Your task to perform on an android device: Empty the shopping cart on bestbuy.com. Add razer blade to the cart on bestbuy.com Image 0: 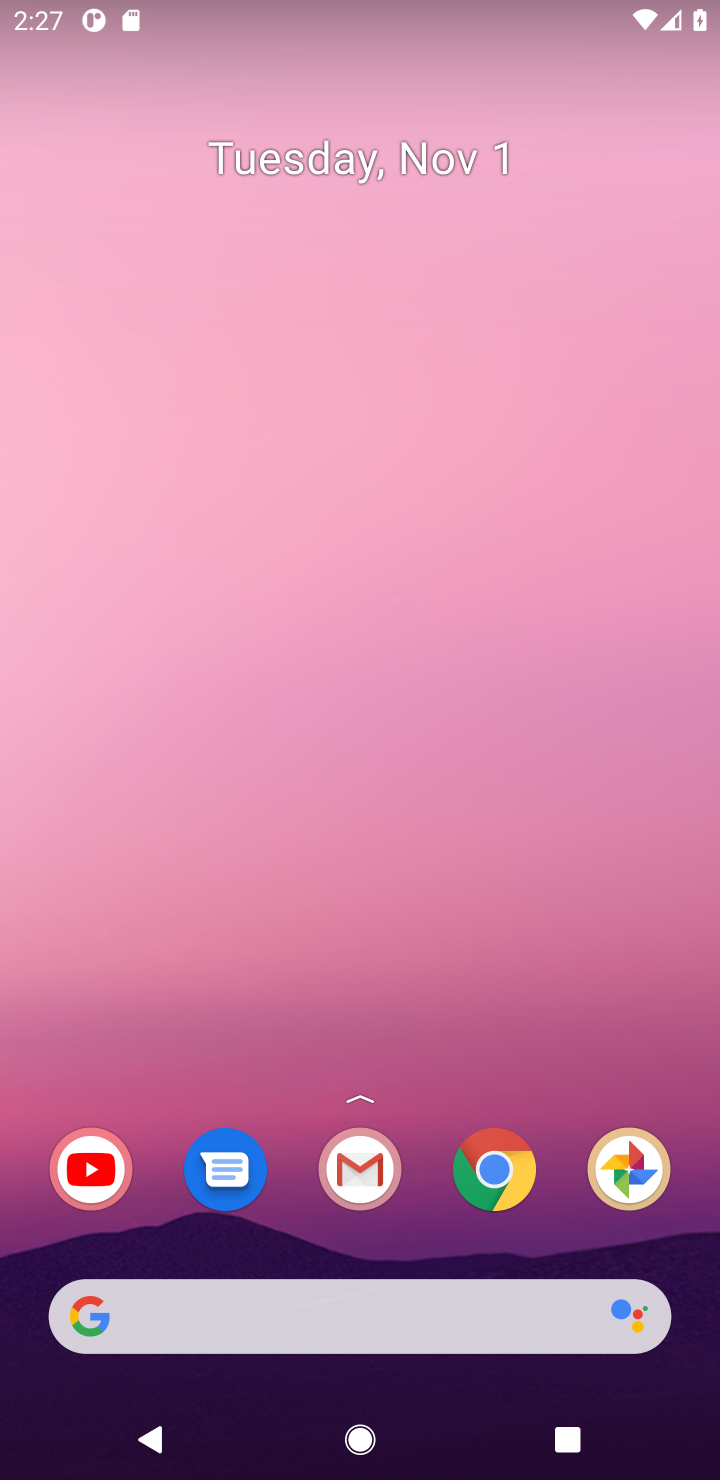
Step 0: press home button
Your task to perform on an android device: Empty the shopping cart on bestbuy.com. Add razer blade to the cart on bestbuy.com Image 1: 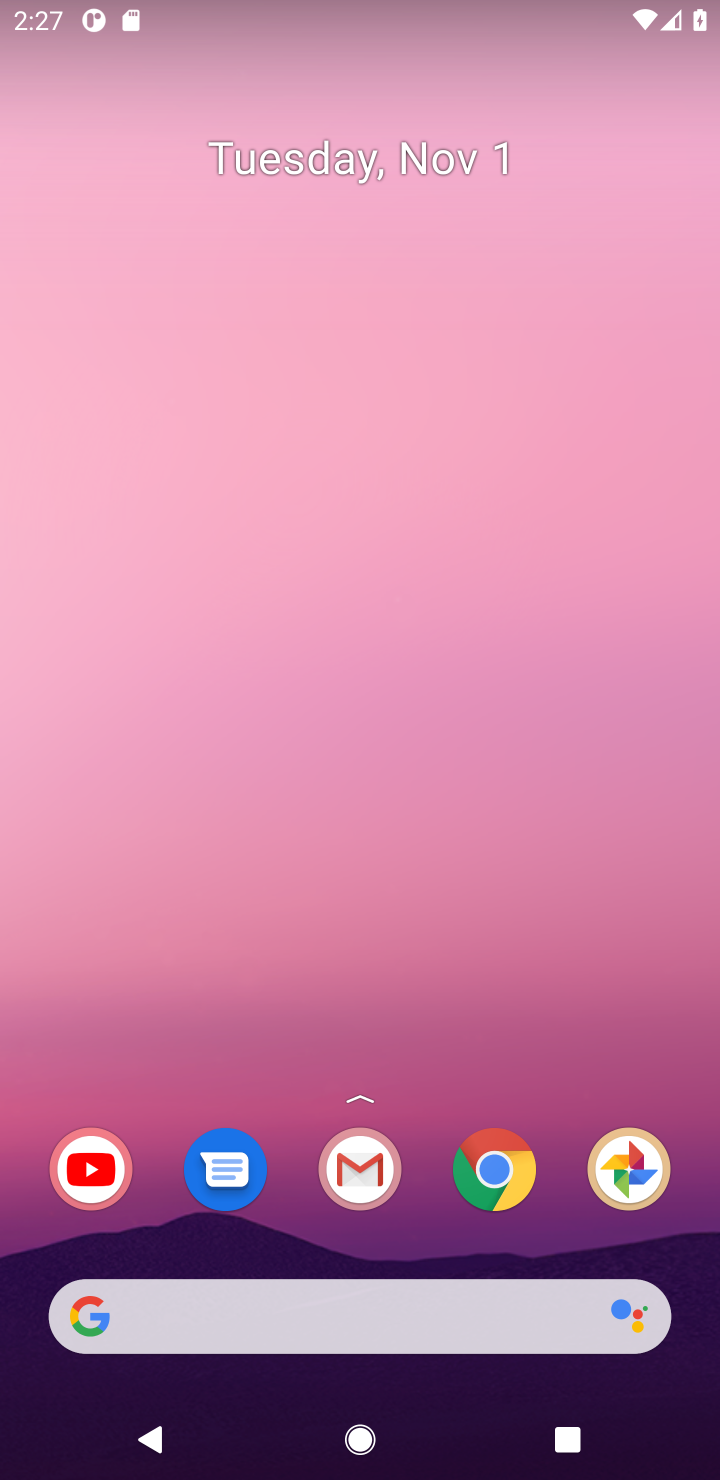
Step 1: drag from (494, 492) to (516, 0)
Your task to perform on an android device: Empty the shopping cart on bestbuy.com. Add razer blade to the cart on bestbuy.com Image 2: 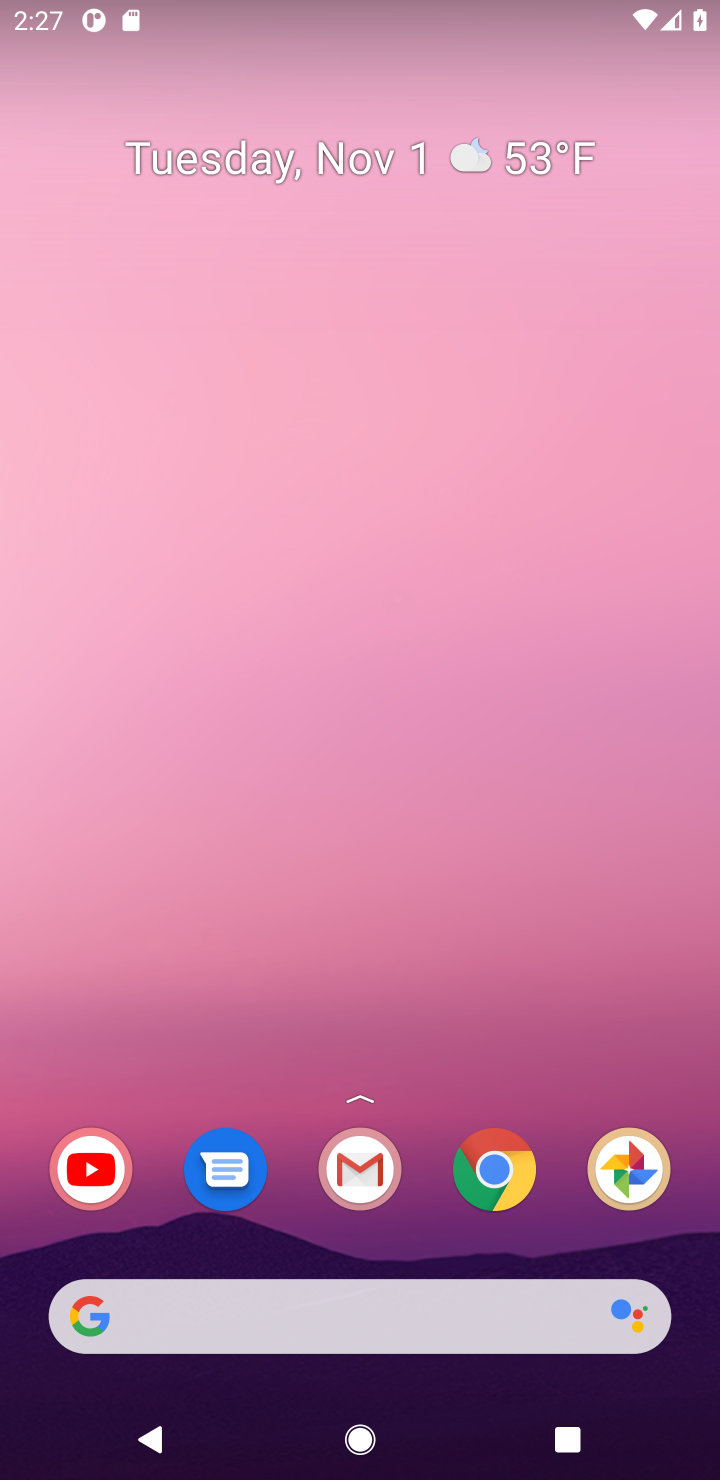
Step 2: drag from (410, 1106) to (525, 32)
Your task to perform on an android device: Empty the shopping cart on bestbuy.com. Add razer blade to the cart on bestbuy.com Image 3: 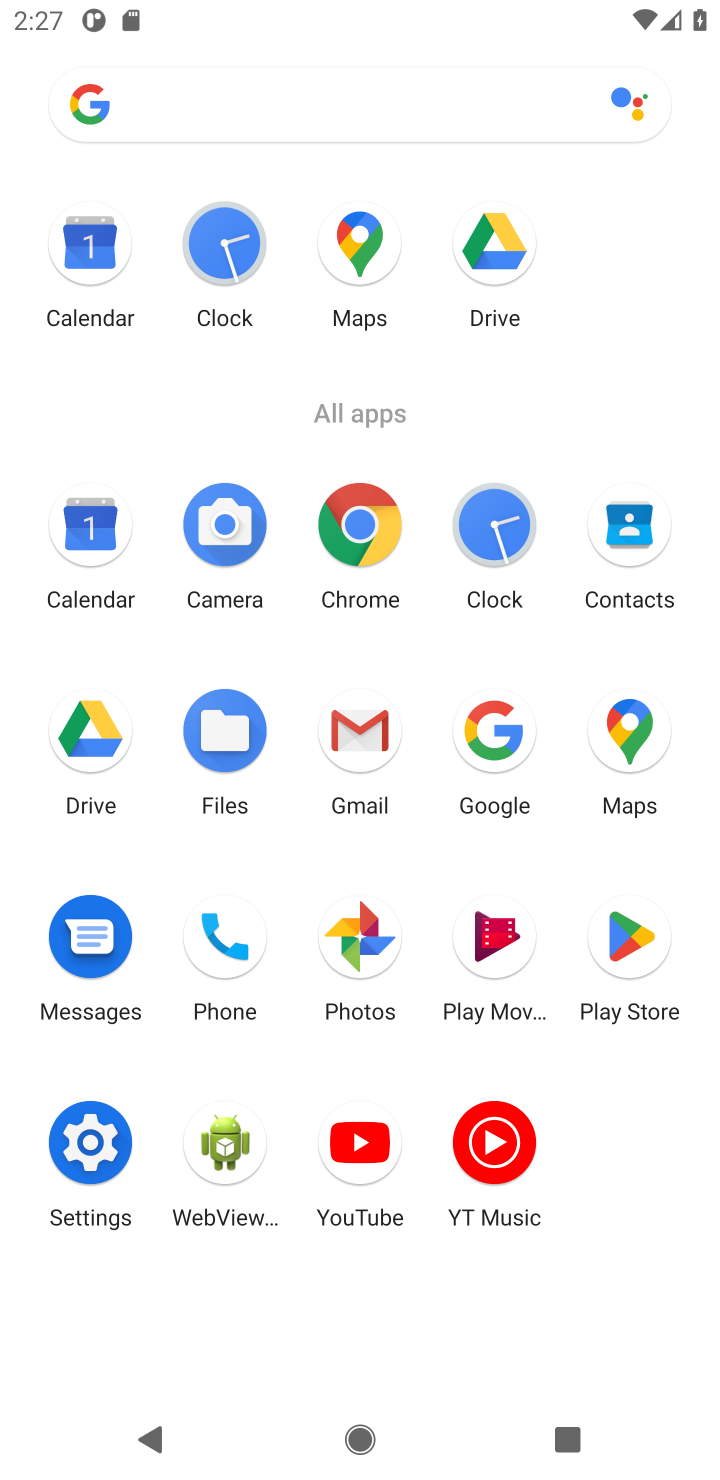
Step 3: click (358, 518)
Your task to perform on an android device: Empty the shopping cart on bestbuy.com. Add razer blade to the cart on bestbuy.com Image 4: 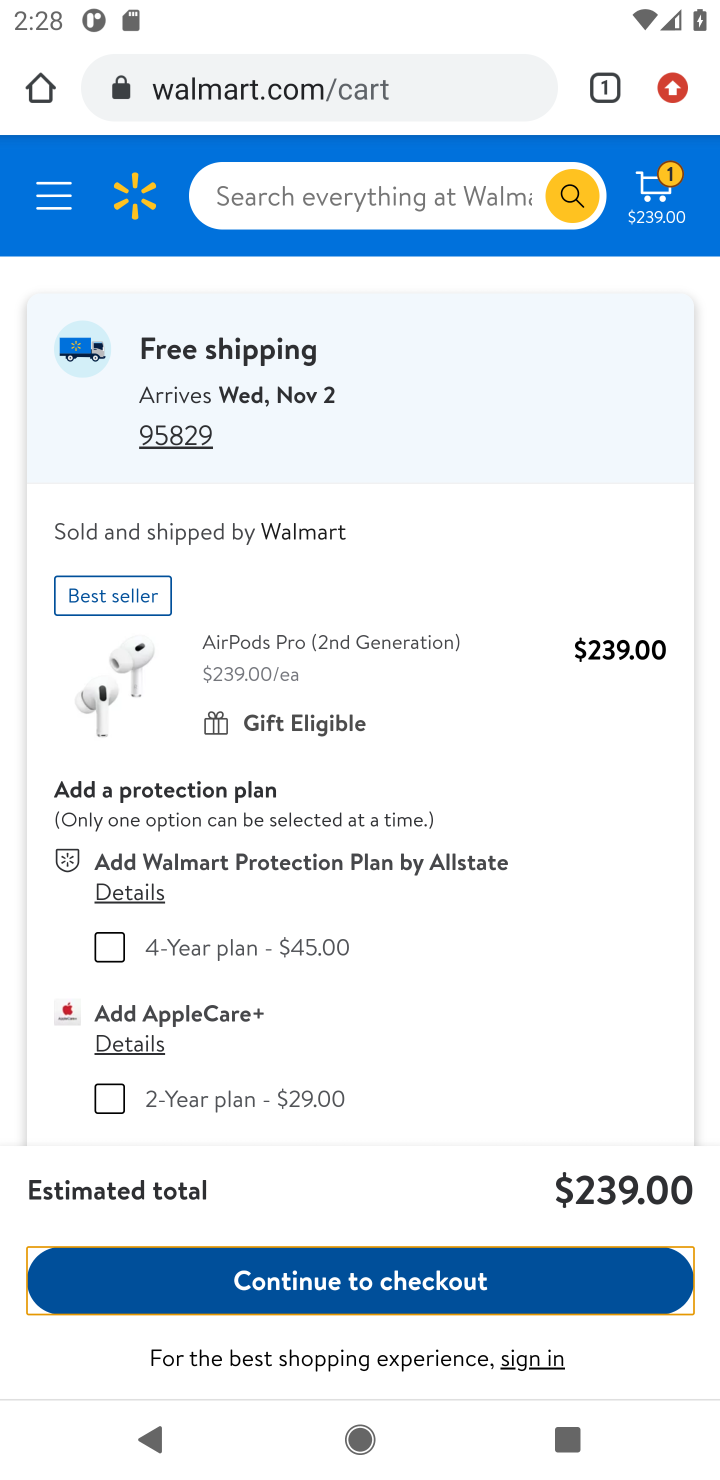
Step 4: click (264, 74)
Your task to perform on an android device: Empty the shopping cart on bestbuy.com. Add razer blade to the cart on bestbuy.com Image 5: 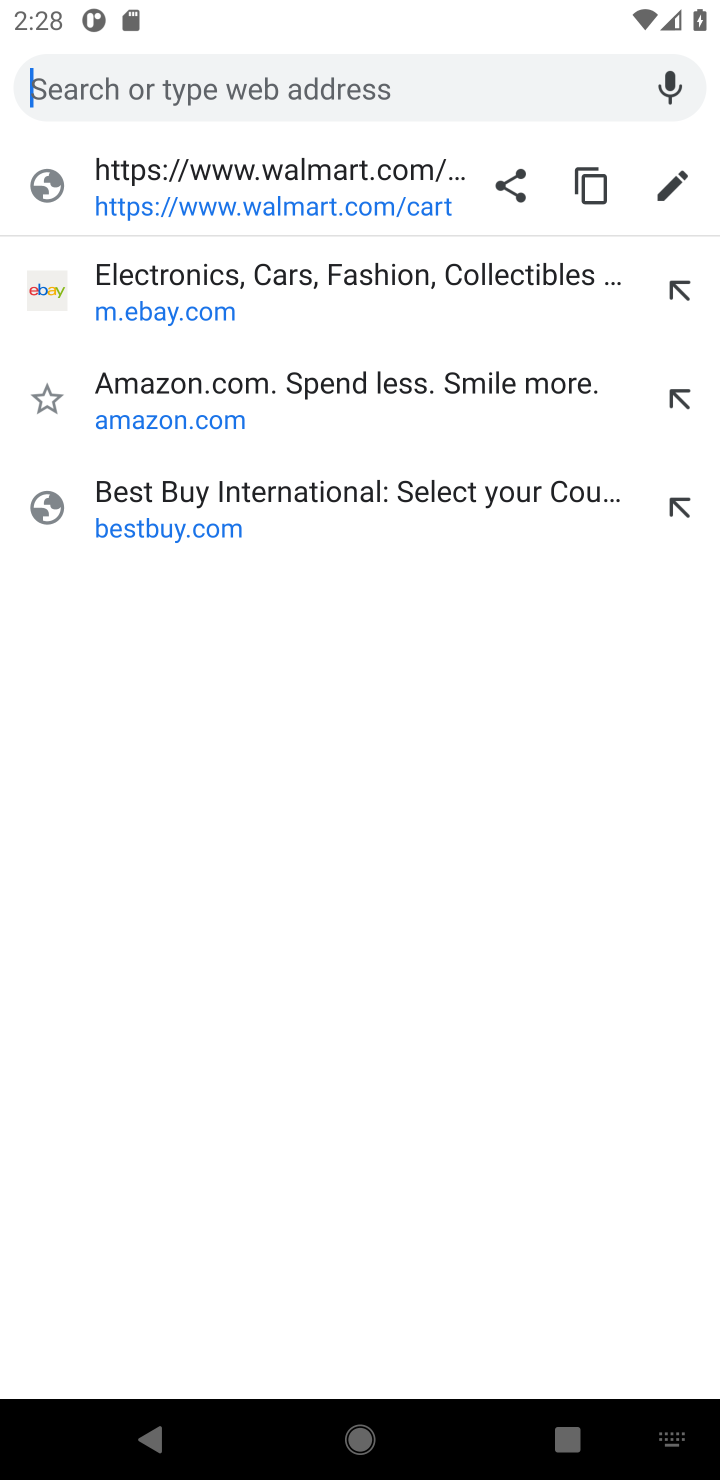
Step 5: type "bestbuy.com"
Your task to perform on an android device: Empty the shopping cart on bestbuy.com. Add razer blade to the cart on bestbuy.com Image 6: 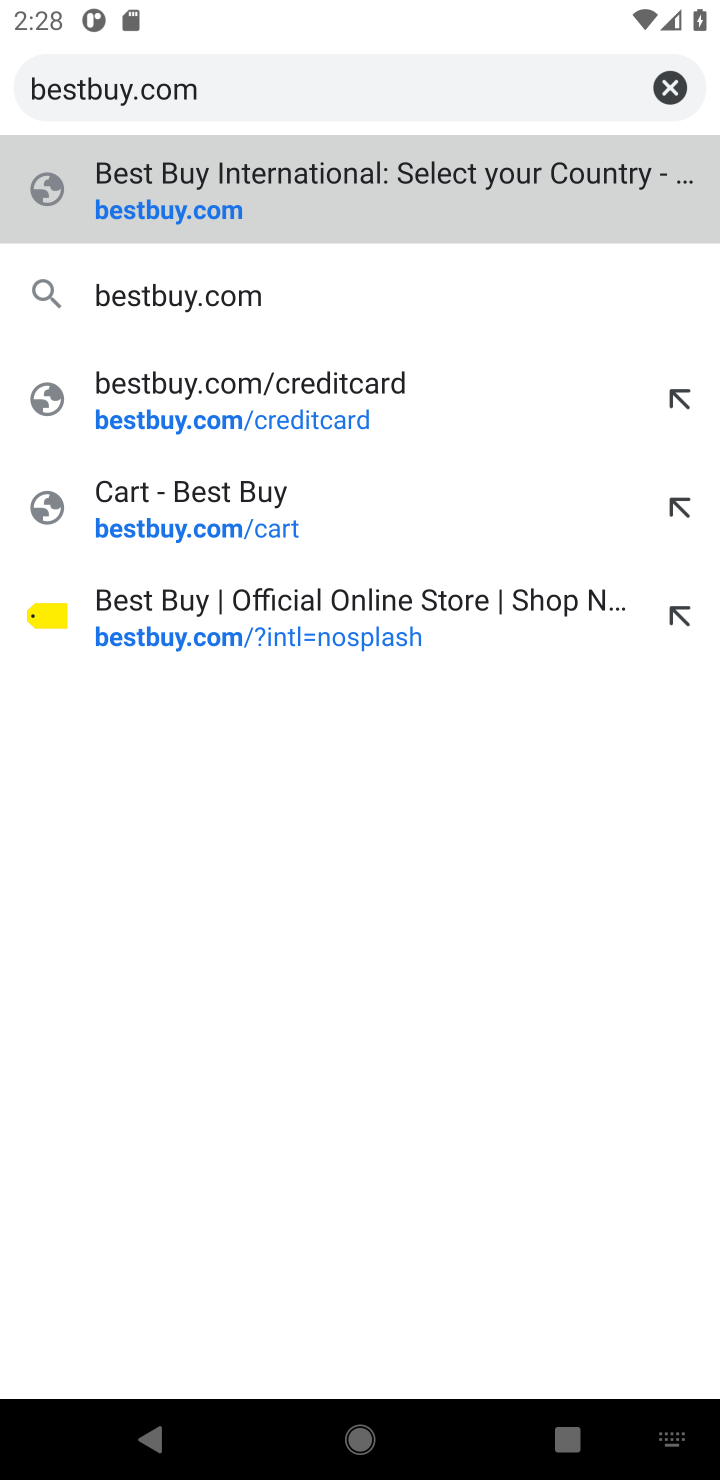
Step 6: click (291, 201)
Your task to perform on an android device: Empty the shopping cart on bestbuy.com. Add razer blade to the cart on bestbuy.com Image 7: 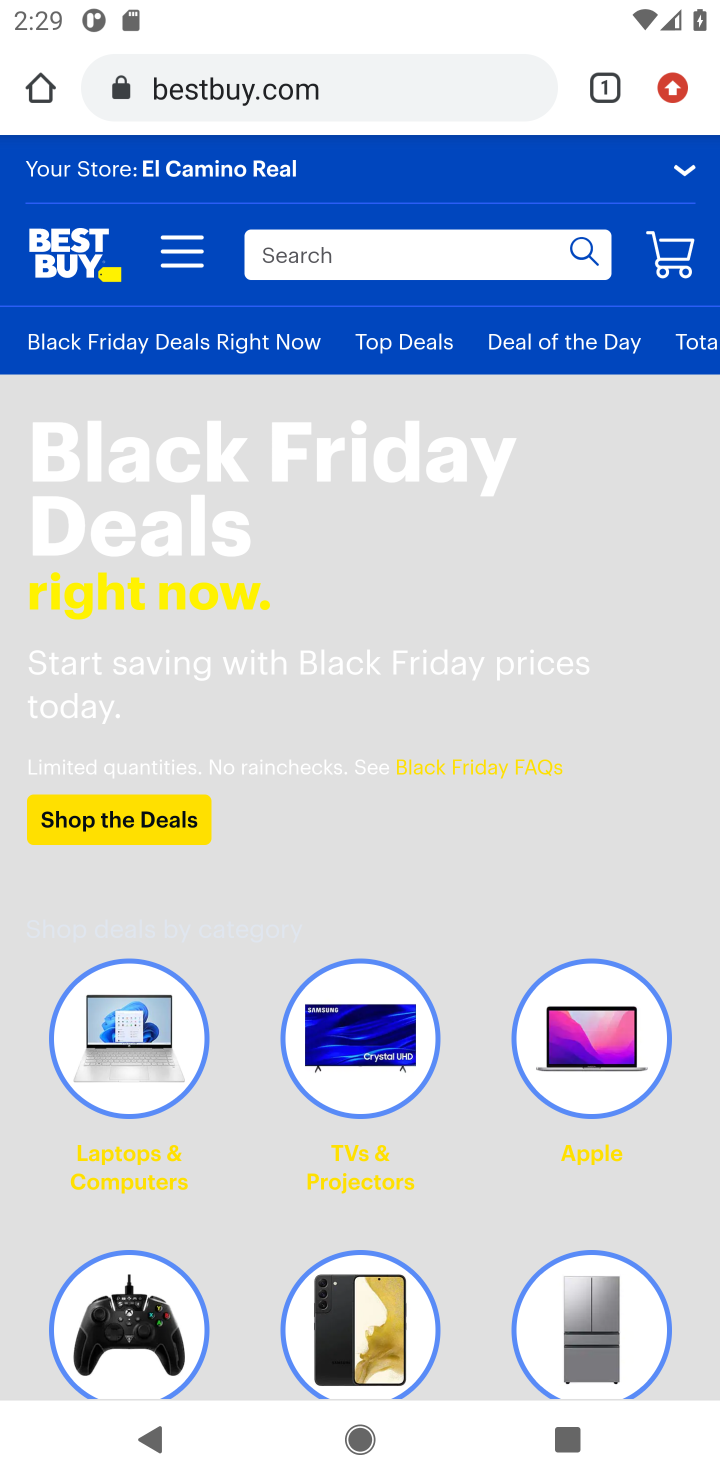
Step 7: click (326, 248)
Your task to perform on an android device: Empty the shopping cart on bestbuy.com. Add razer blade to the cart on bestbuy.com Image 8: 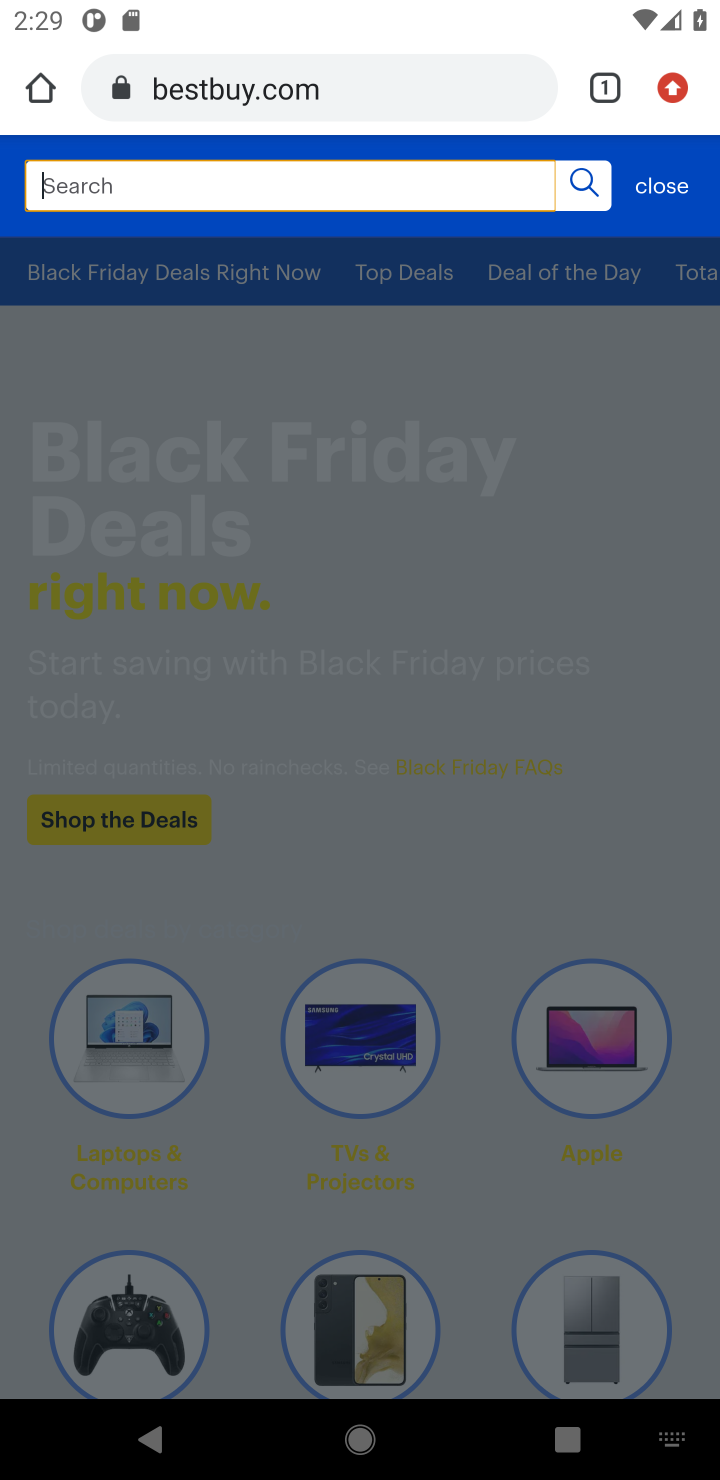
Step 8: type "razer blade"
Your task to perform on an android device: Empty the shopping cart on bestbuy.com. Add razer blade to the cart on bestbuy.com Image 9: 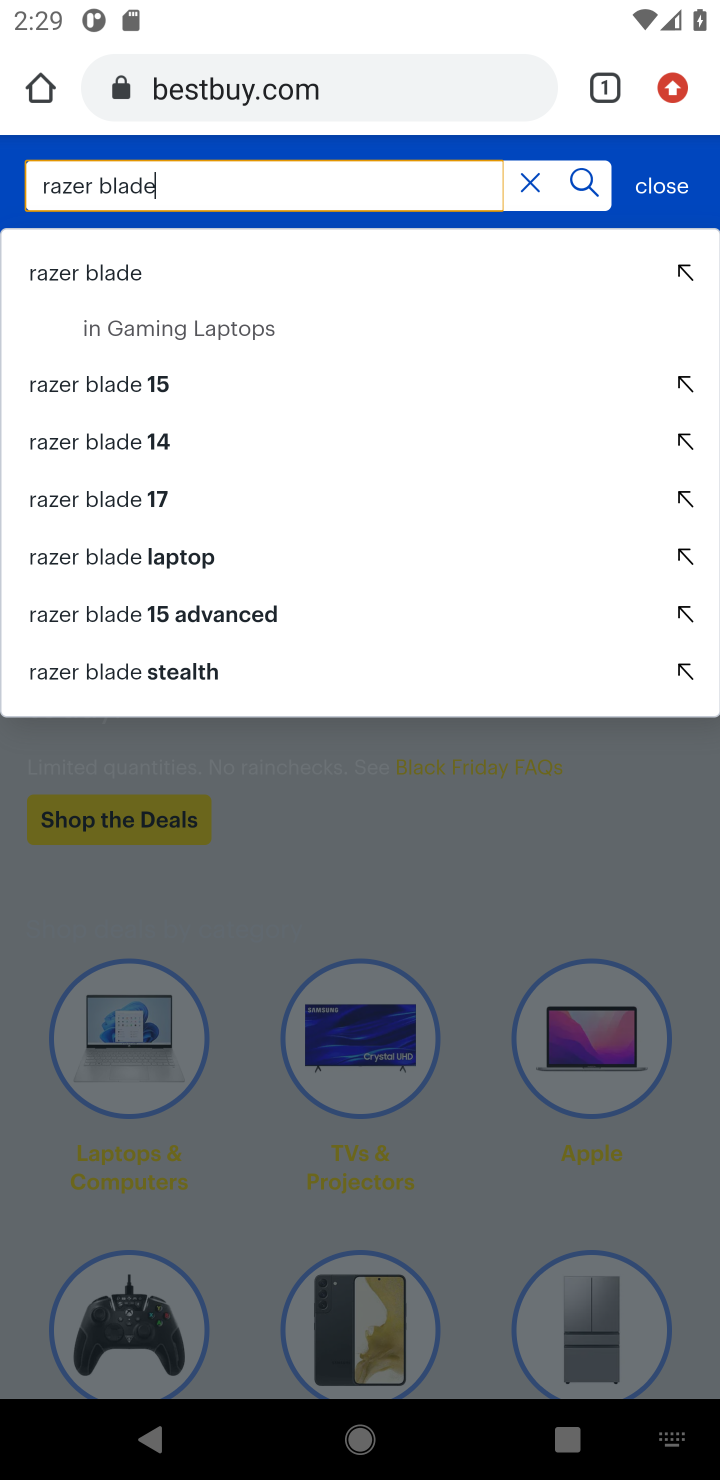
Step 9: click (120, 292)
Your task to perform on an android device: Empty the shopping cart on bestbuy.com. Add razer blade to the cart on bestbuy.com Image 10: 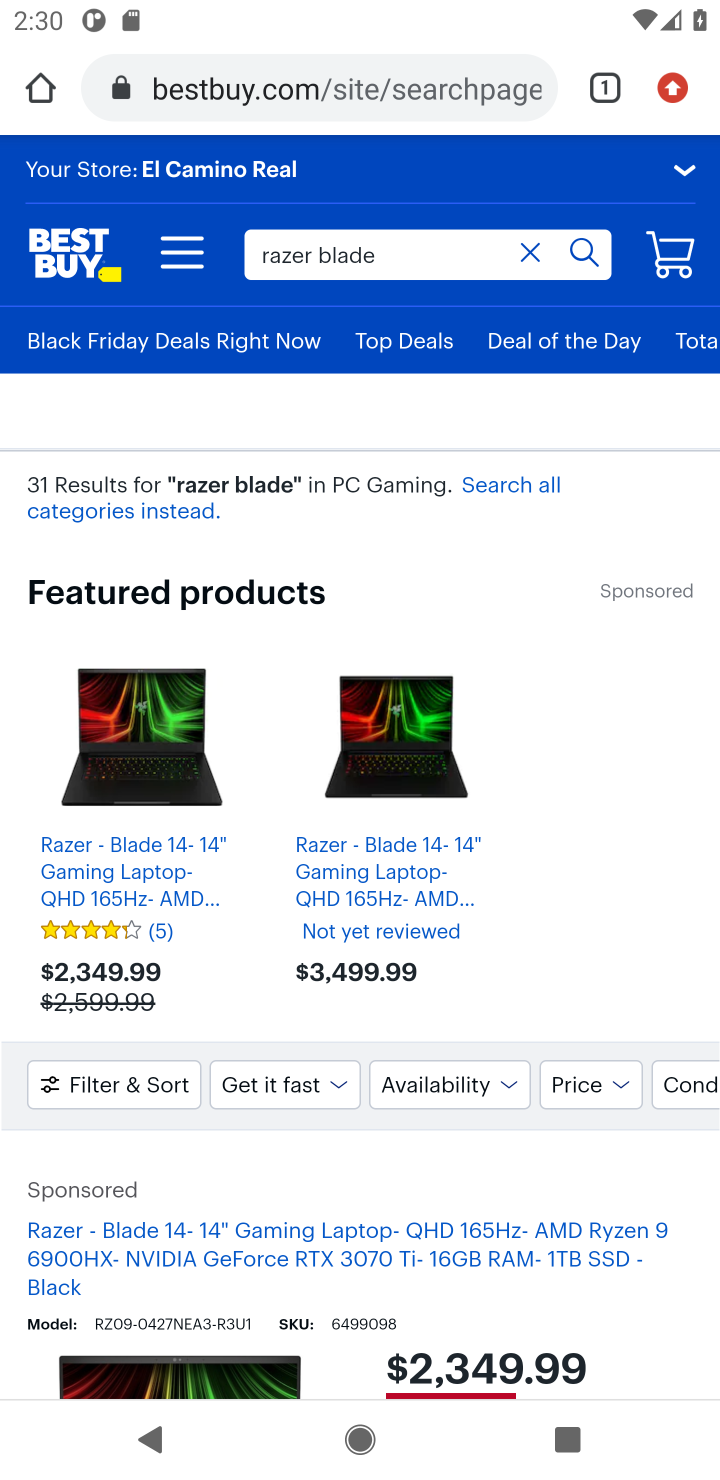
Step 10: click (278, 1242)
Your task to perform on an android device: Empty the shopping cart on bestbuy.com. Add razer blade to the cart on bestbuy.com Image 11: 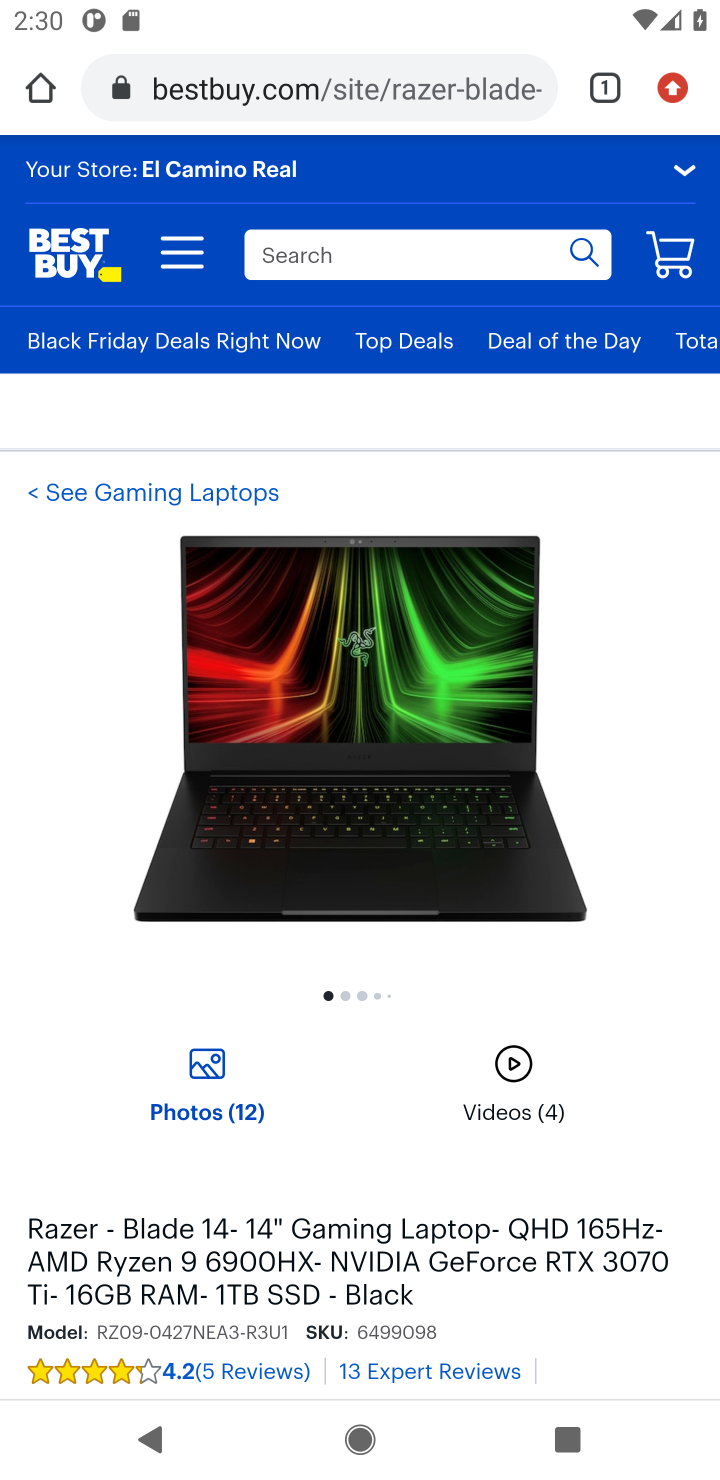
Step 11: drag from (413, 1294) to (400, 213)
Your task to perform on an android device: Empty the shopping cart on bestbuy.com. Add razer blade to the cart on bestbuy.com Image 12: 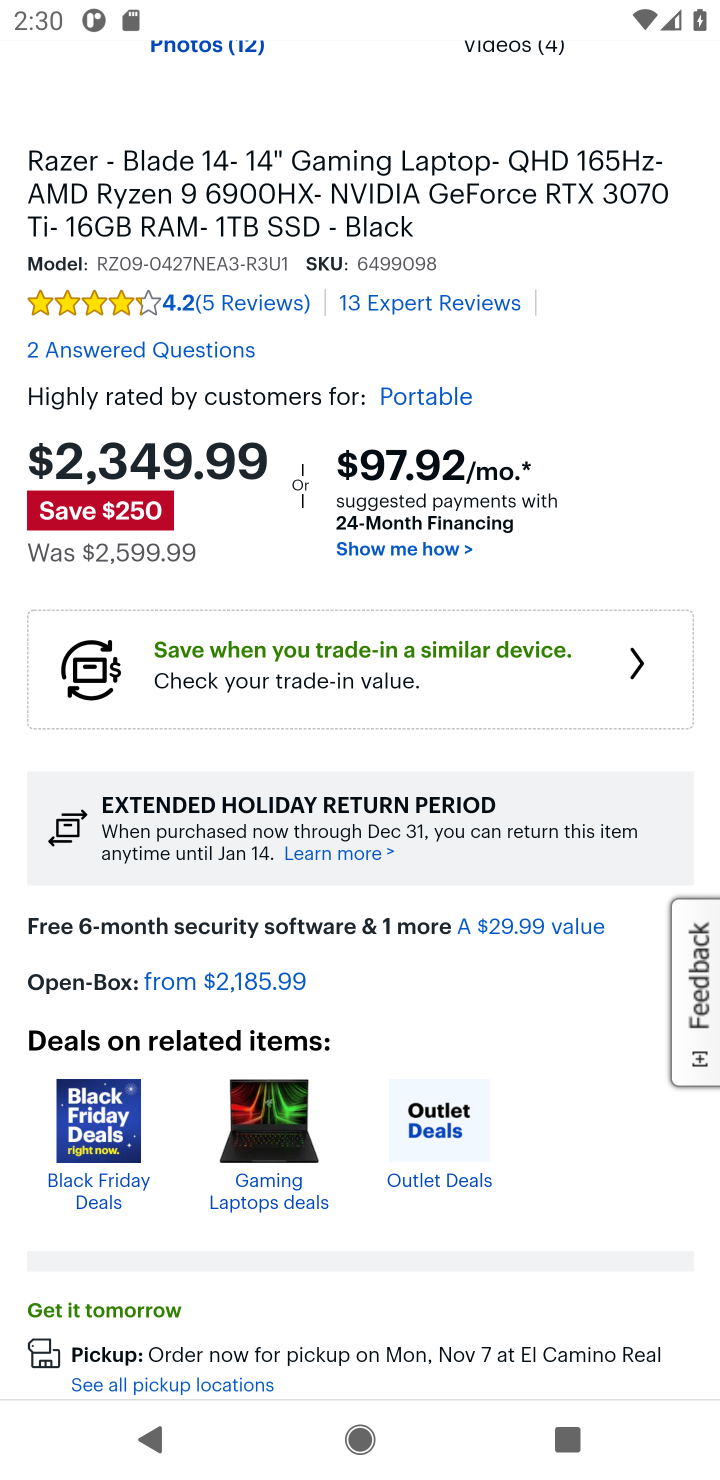
Step 12: drag from (307, 1100) to (317, 544)
Your task to perform on an android device: Empty the shopping cart on bestbuy.com. Add razer blade to the cart on bestbuy.com Image 13: 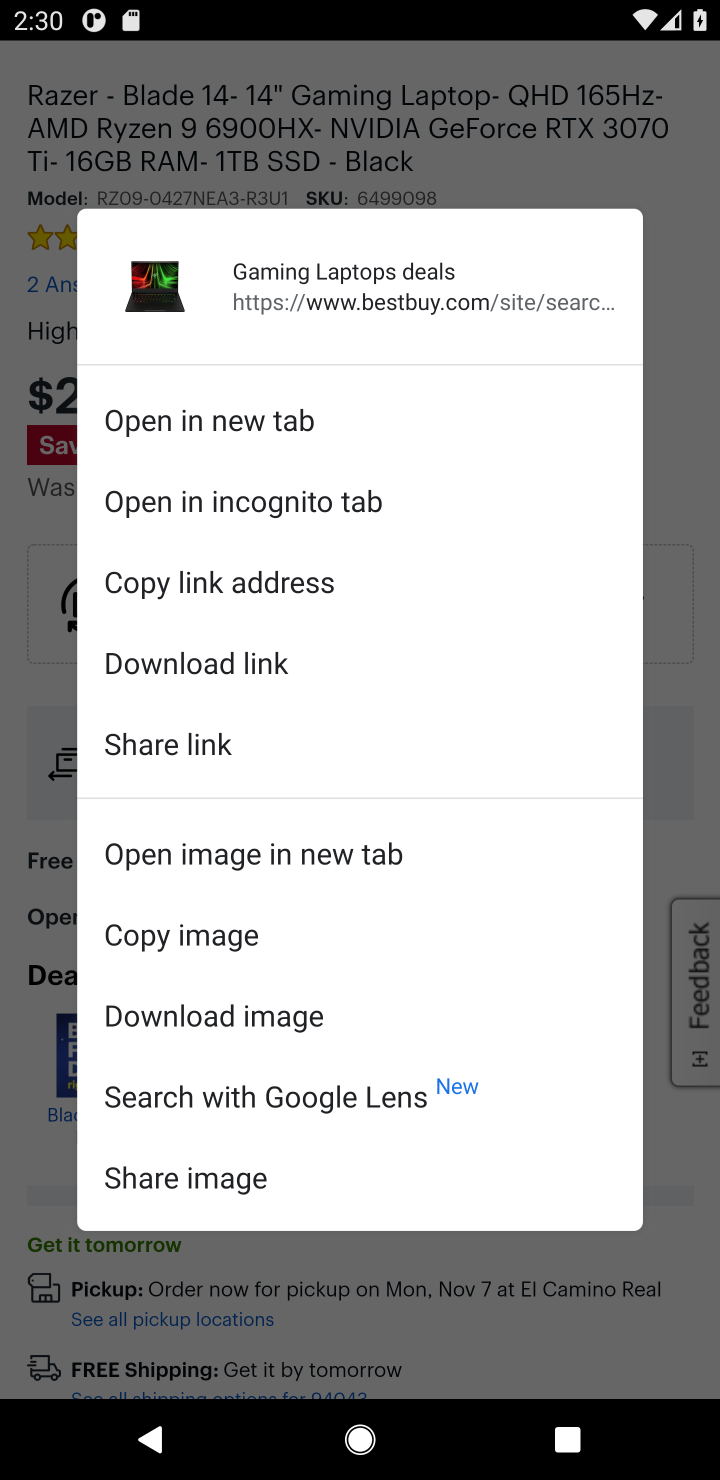
Step 13: click (47, 543)
Your task to perform on an android device: Empty the shopping cart on bestbuy.com. Add razer blade to the cart on bestbuy.com Image 14: 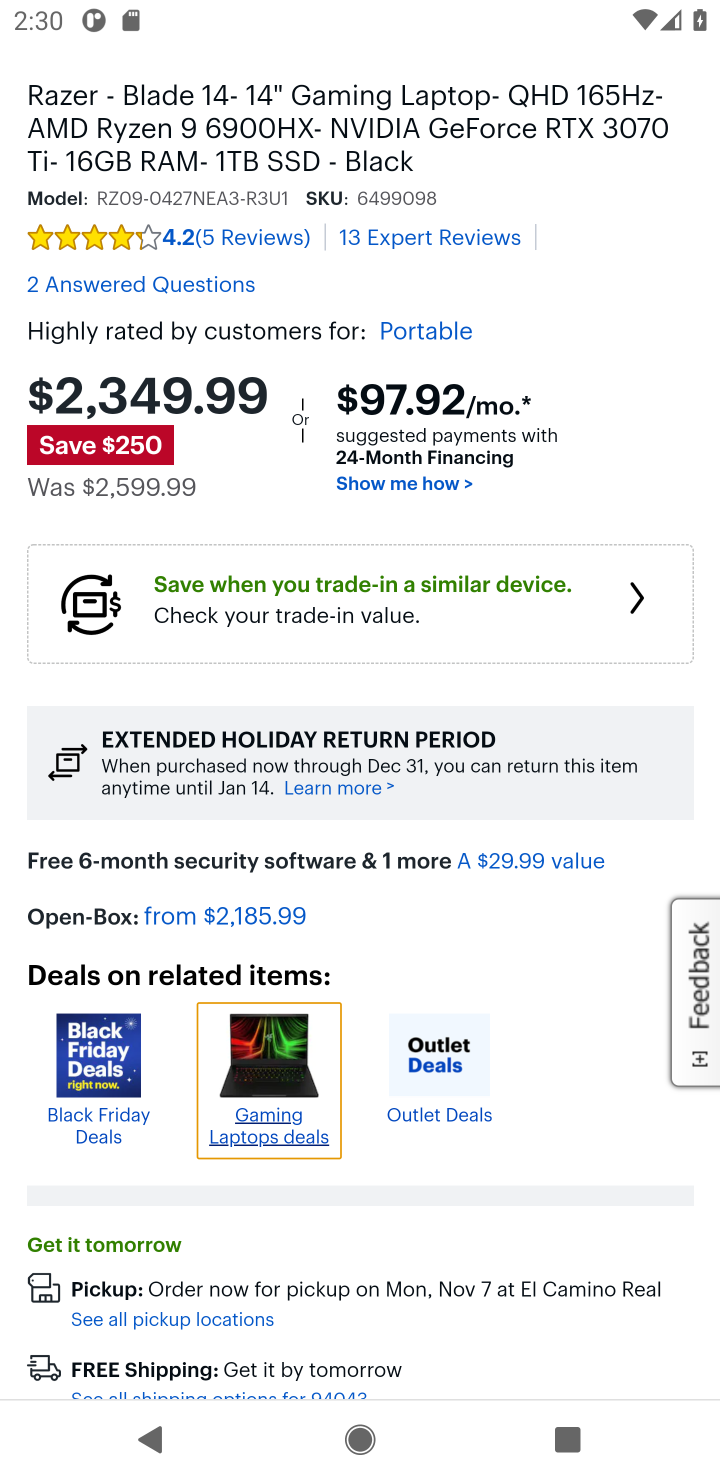
Step 14: drag from (417, 1242) to (462, 347)
Your task to perform on an android device: Empty the shopping cart on bestbuy.com. Add razer blade to the cart on bestbuy.com Image 15: 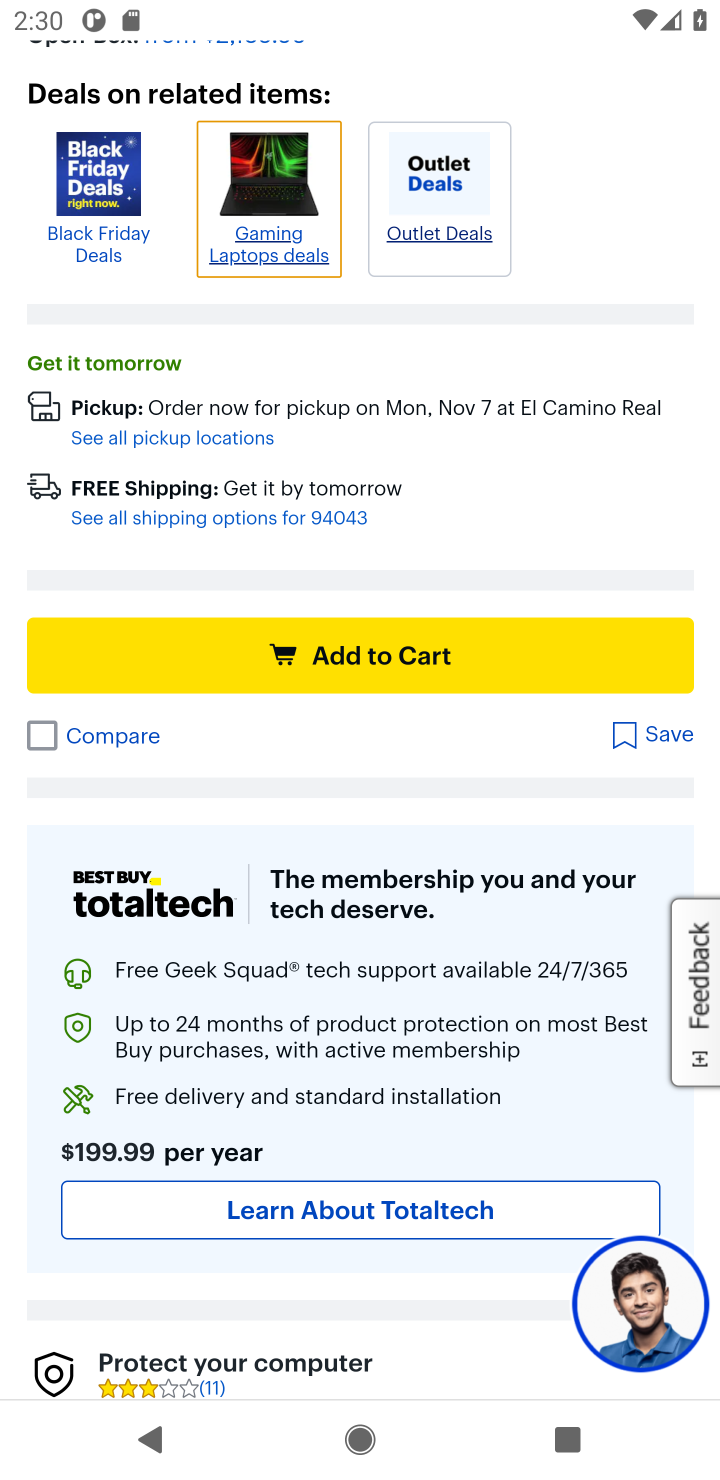
Step 15: click (368, 659)
Your task to perform on an android device: Empty the shopping cart on bestbuy.com. Add razer blade to the cart on bestbuy.com Image 16: 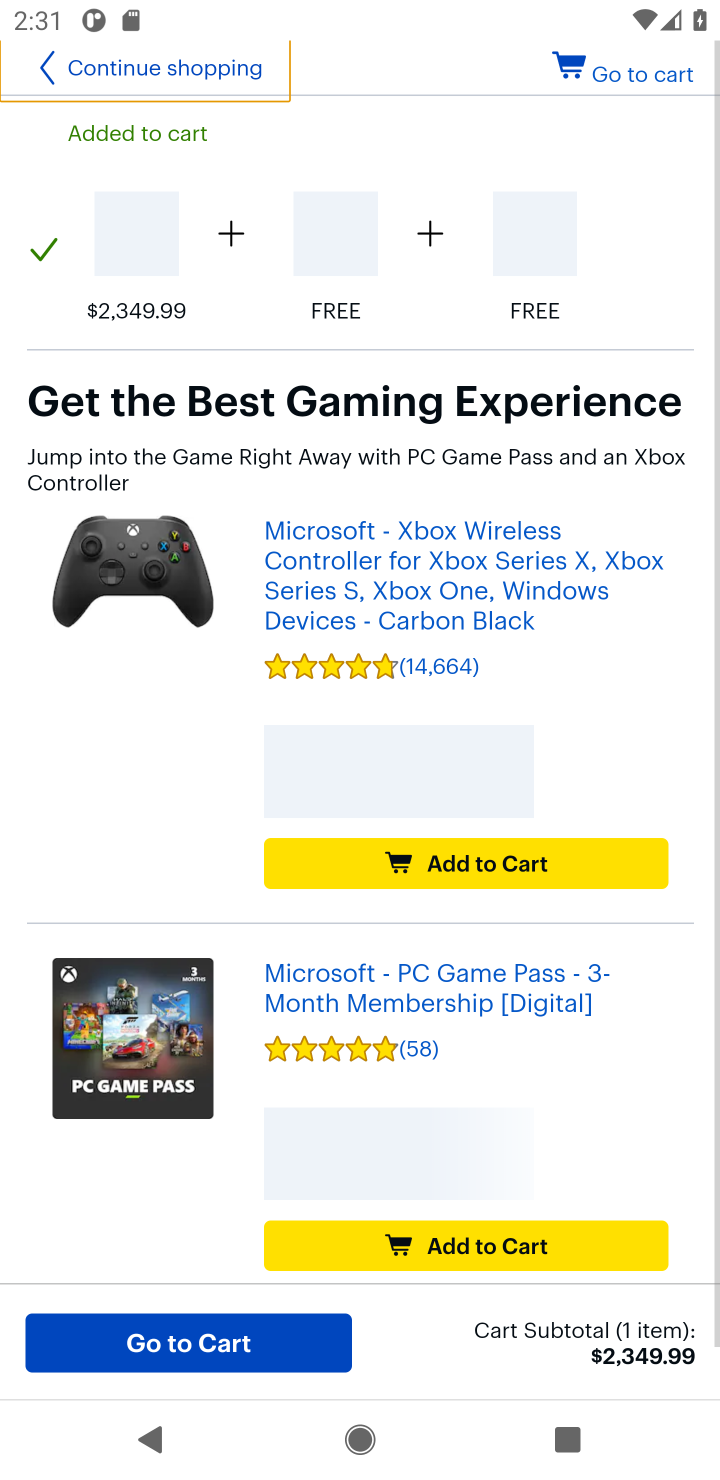
Step 16: click (175, 1343)
Your task to perform on an android device: Empty the shopping cart on bestbuy.com. Add razer blade to the cart on bestbuy.com Image 17: 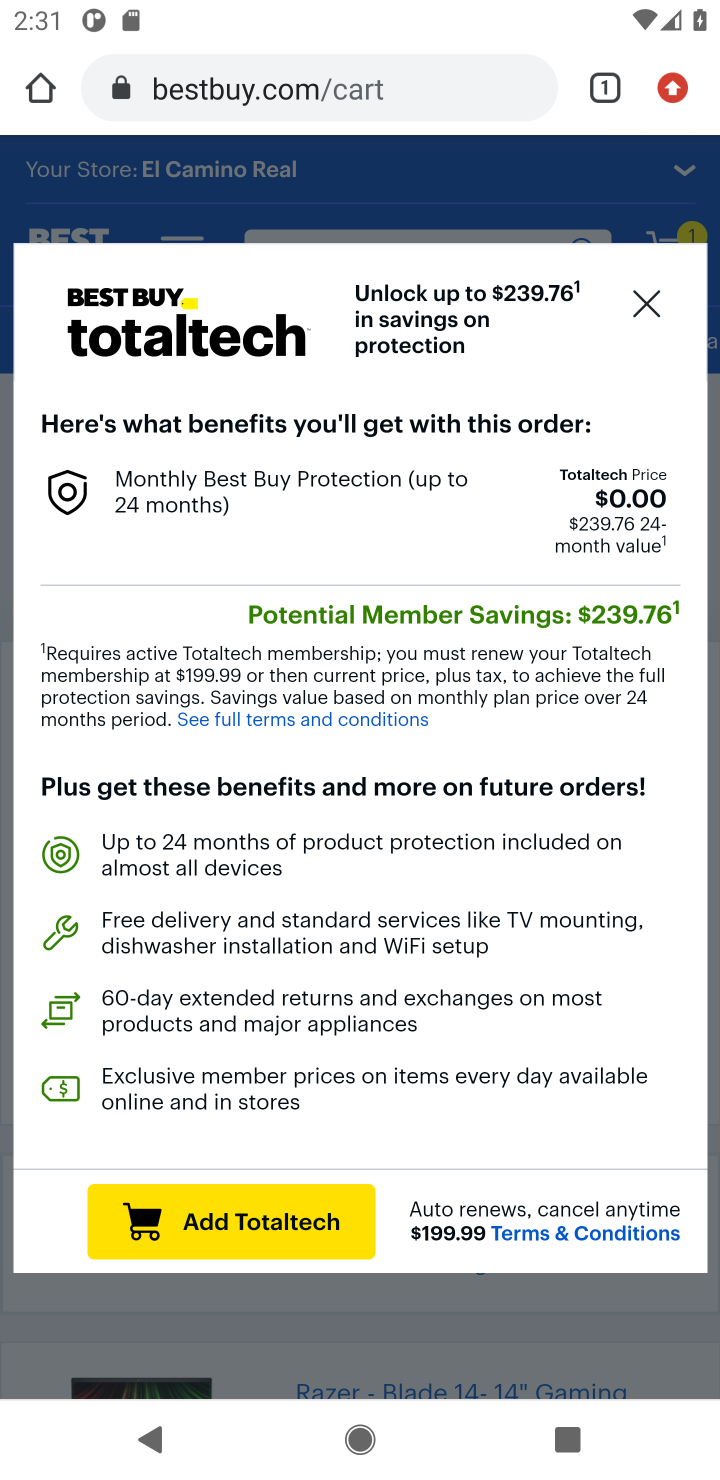
Step 17: click (648, 303)
Your task to perform on an android device: Empty the shopping cart on bestbuy.com. Add razer blade to the cart on bestbuy.com Image 18: 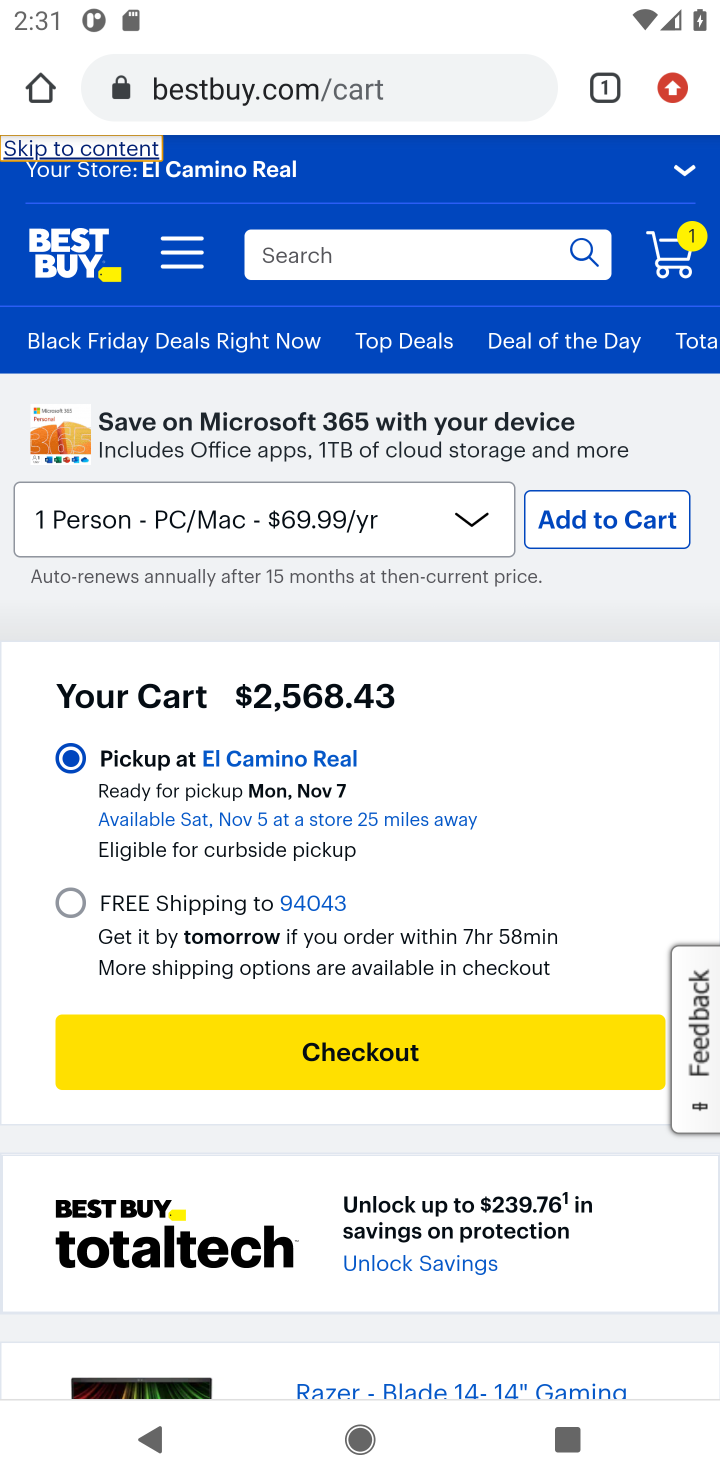
Step 18: task complete